Your task to perform on an android device: open app "Indeed Job Search" (install if not already installed) and enter user name: "quixotic@inbox.com" and password: "microphones" Image 0: 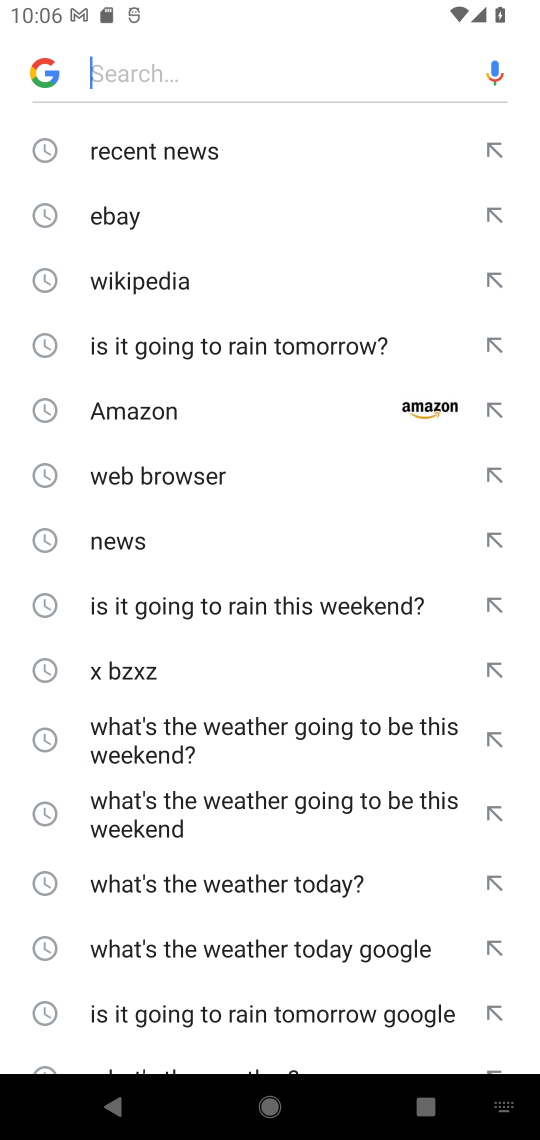
Step 0: press home button
Your task to perform on an android device: open app "Indeed Job Search" (install if not already installed) and enter user name: "quixotic@inbox.com" and password: "microphones" Image 1: 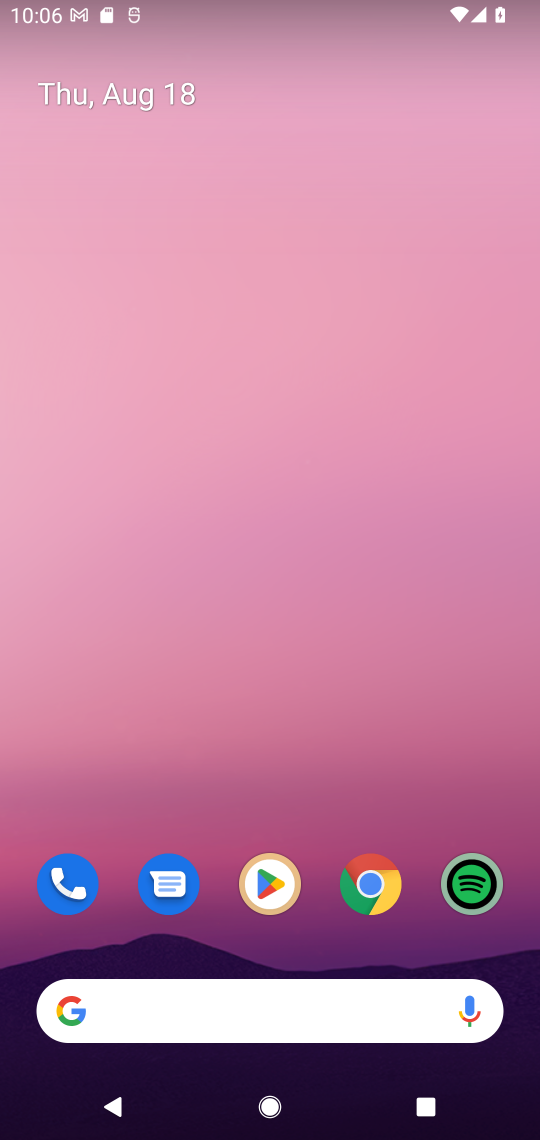
Step 1: click (251, 868)
Your task to perform on an android device: open app "Indeed Job Search" (install if not already installed) and enter user name: "quixotic@inbox.com" and password: "microphones" Image 2: 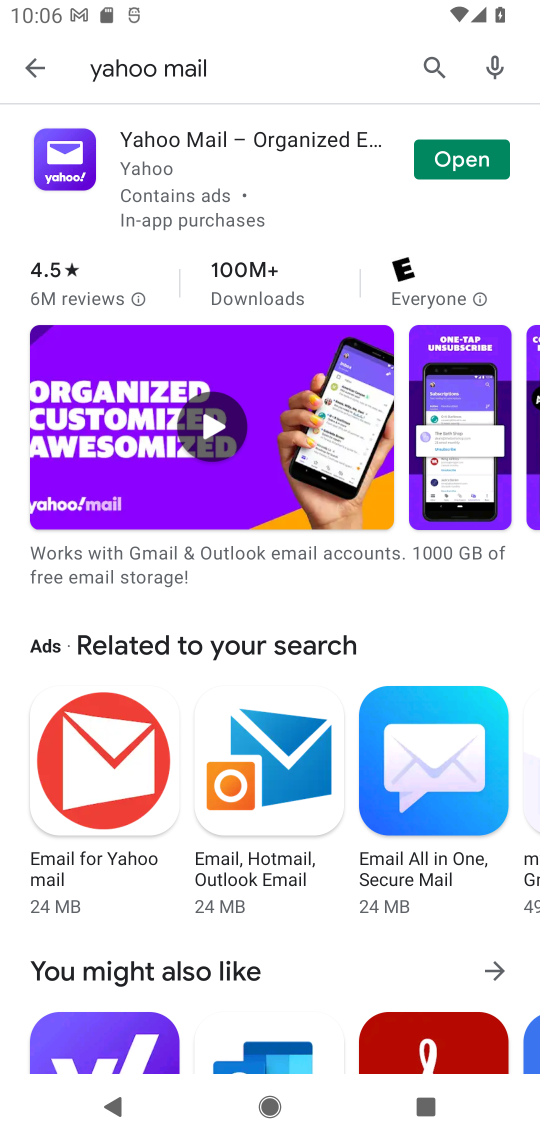
Step 2: click (425, 78)
Your task to perform on an android device: open app "Indeed Job Search" (install if not already installed) and enter user name: "quixotic@inbox.com" and password: "microphones" Image 3: 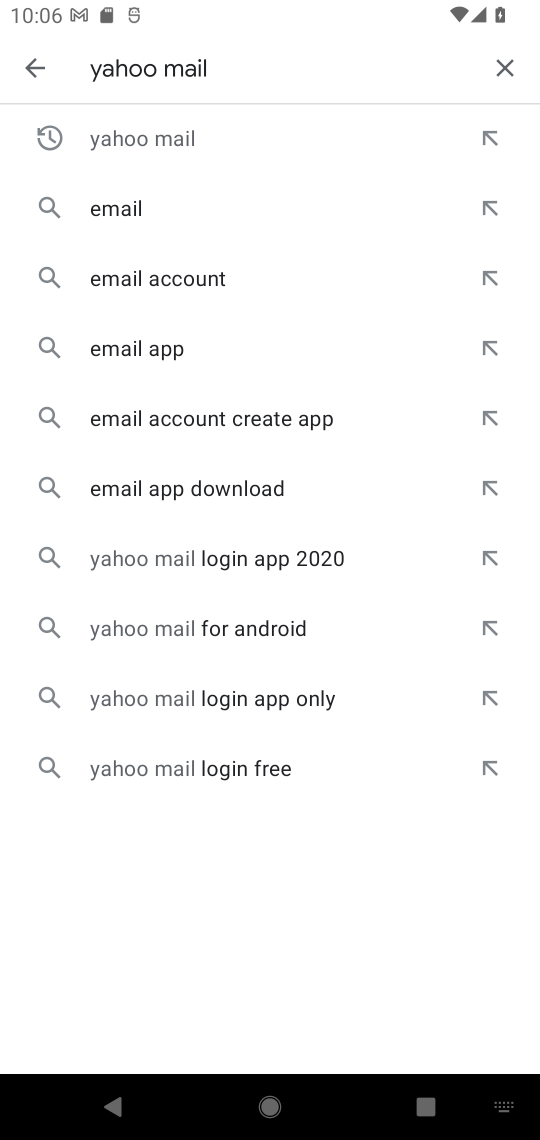
Step 3: click (496, 71)
Your task to perform on an android device: open app "Indeed Job Search" (install if not already installed) and enter user name: "quixotic@inbox.com" and password: "microphones" Image 4: 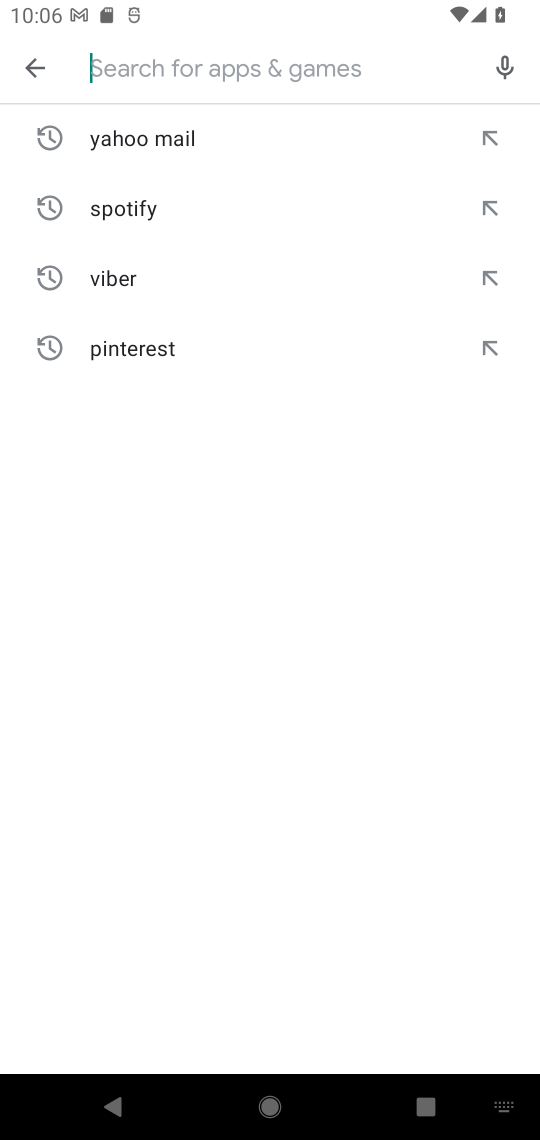
Step 4: type "indeed"
Your task to perform on an android device: open app "Indeed Job Search" (install if not already installed) and enter user name: "quixotic@inbox.com" and password: "microphones" Image 5: 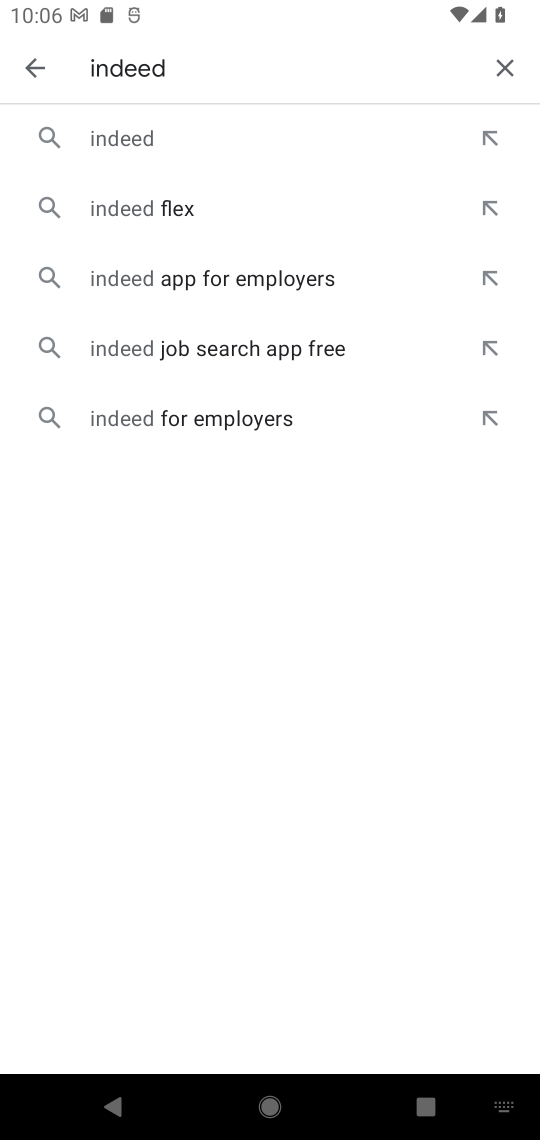
Step 5: click (400, 129)
Your task to perform on an android device: open app "Indeed Job Search" (install if not already installed) and enter user name: "quixotic@inbox.com" and password: "microphones" Image 6: 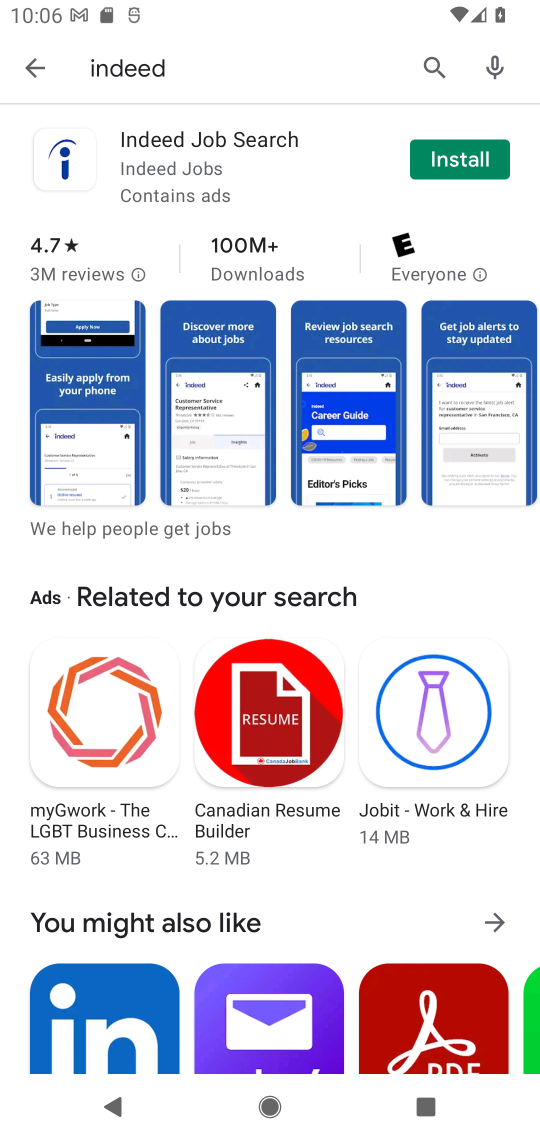
Step 6: click (421, 178)
Your task to perform on an android device: open app "Indeed Job Search" (install if not already installed) and enter user name: "quixotic@inbox.com" and password: "microphones" Image 7: 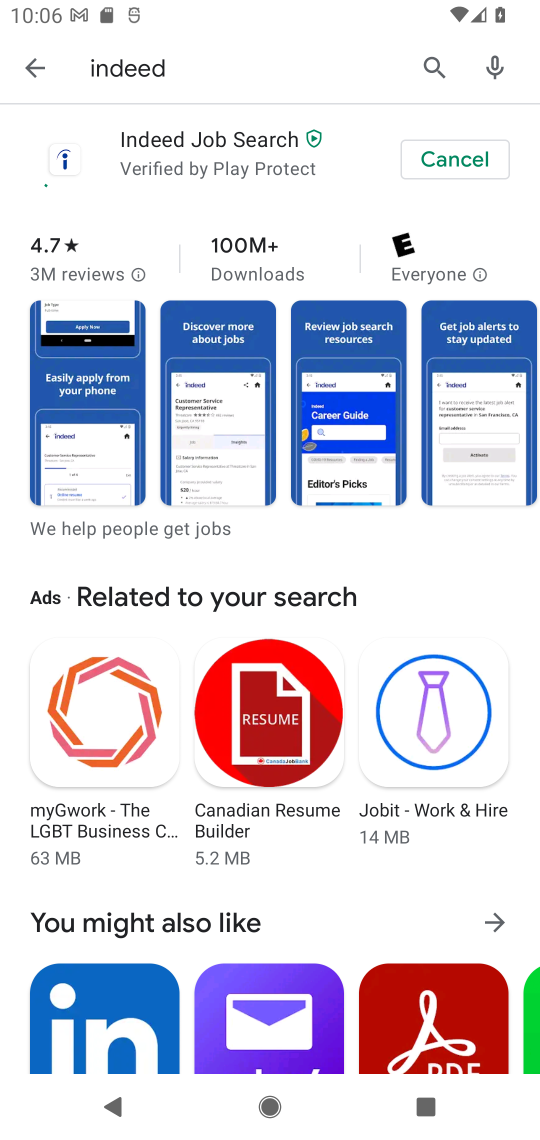
Step 7: task complete